Your task to perform on an android device: Search for the best gaming mouse on Best Buy. Image 0: 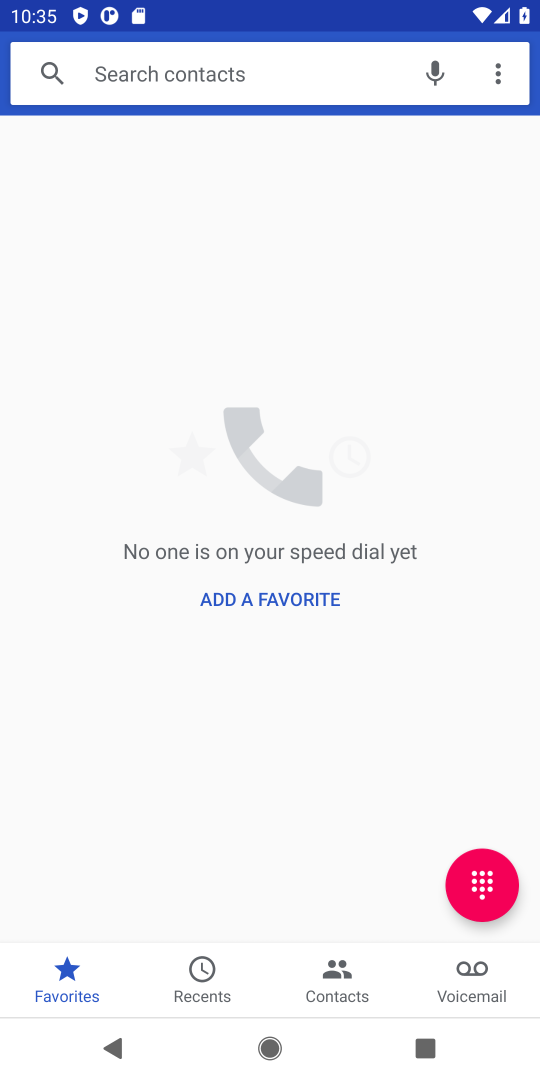
Step 0: press home button
Your task to perform on an android device: Search for the best gaming mouse on Best Buy. Image 1: 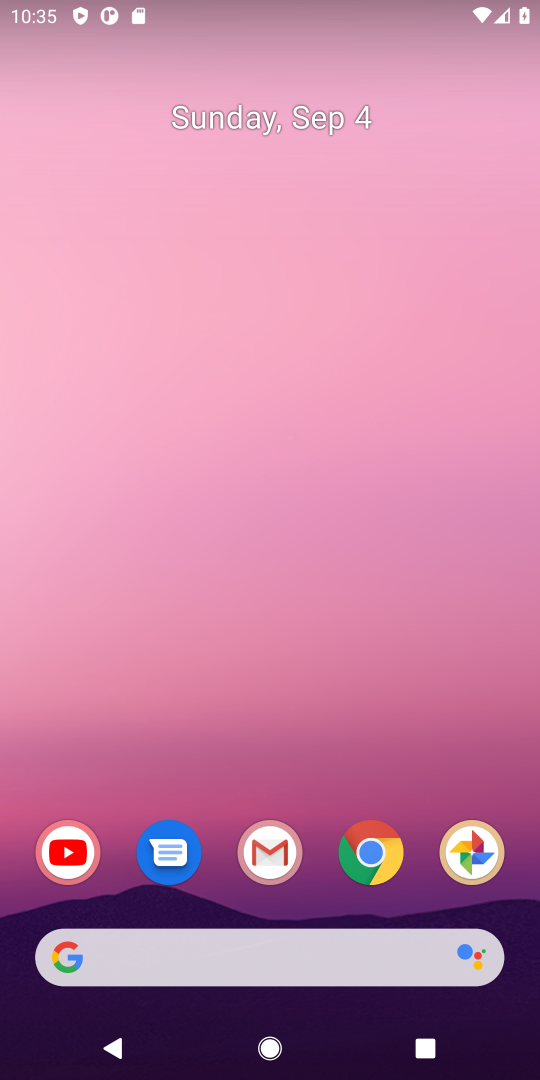
Step 1: drag from (422, 357) to (324, 7)
Your task to perform on an android device: Search for the best gaming mouse on Best Buy. Image 2: 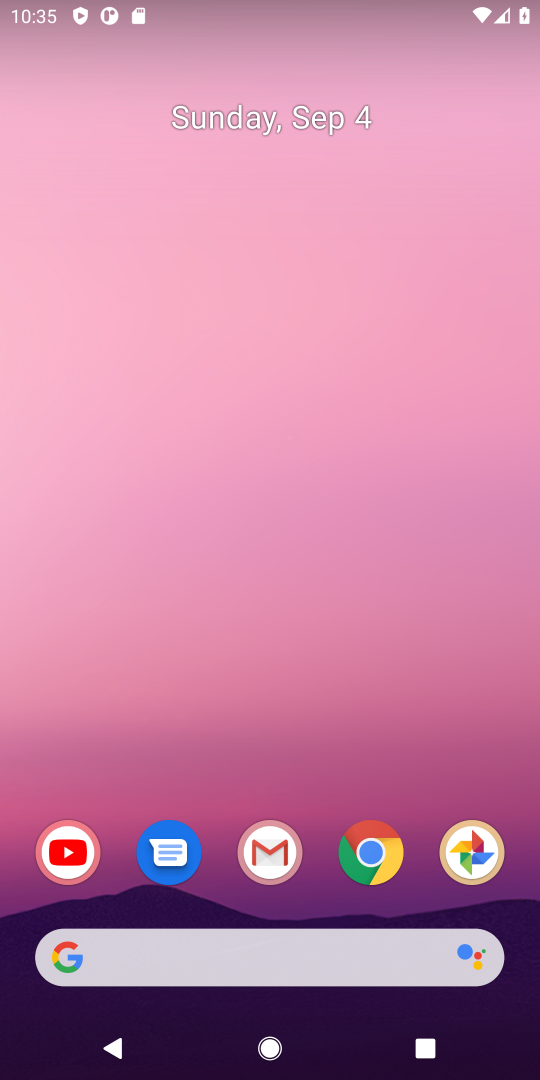
Step 2: drag from (427, 870) to (237, 36)
Your task to perform on an android device: Search for the best gaming mouse on Best Buy. Image 3: 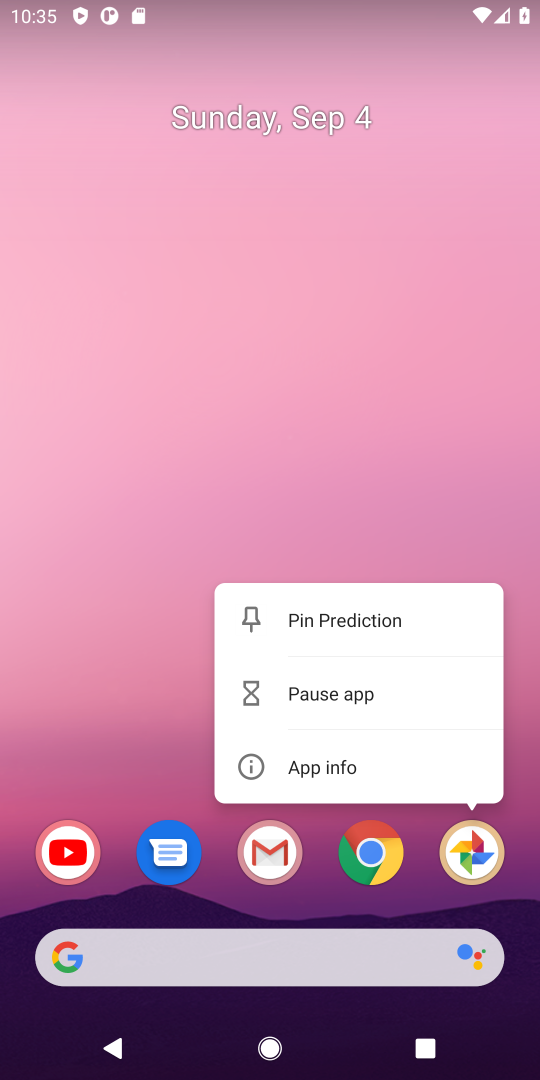
Step 3: click (341, 404)
Your task to perform on an android device: Search for the best gaming mouse on Best Buy. Image 4: 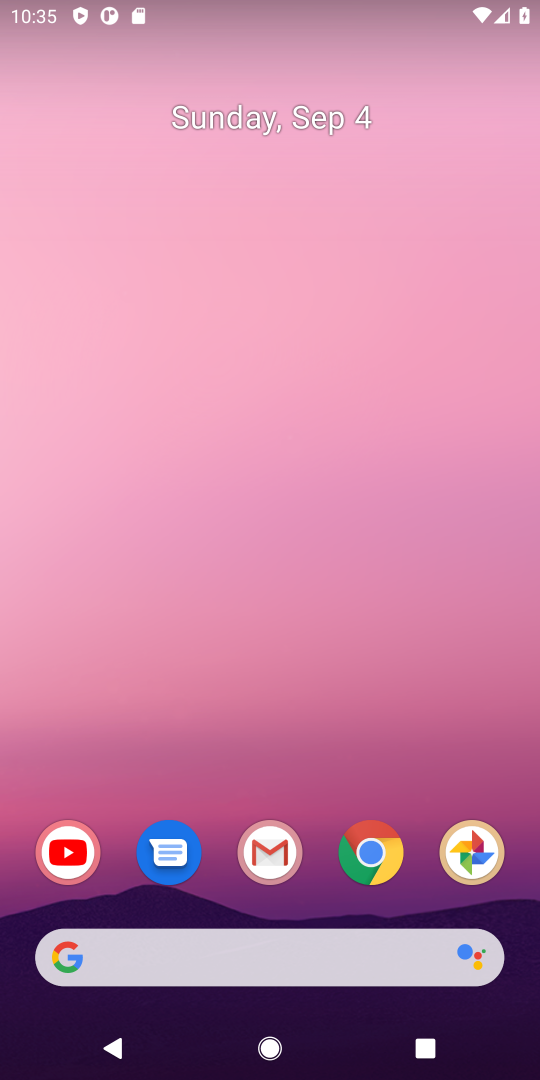
Step 4: drag from (323, 309) to (204, 15)
Your task to perform on an android device: Search for the best gaming mouse on Best Buy. Image 5: 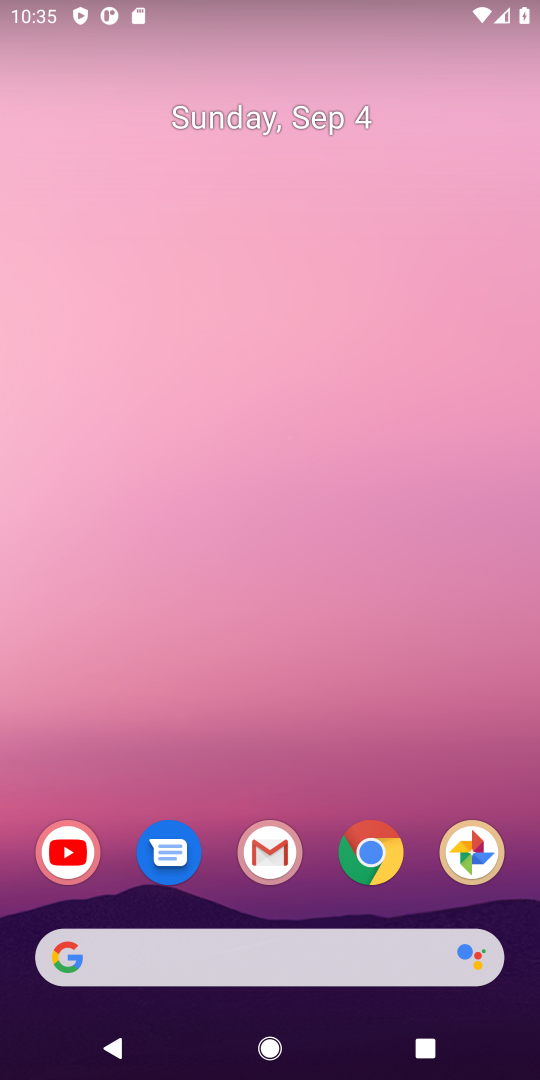
Step 5: drag from (425, 905) to (321, 25)
Your task to perform on an android device: Search for the best gaming mouse on Best Buy. Image 6: 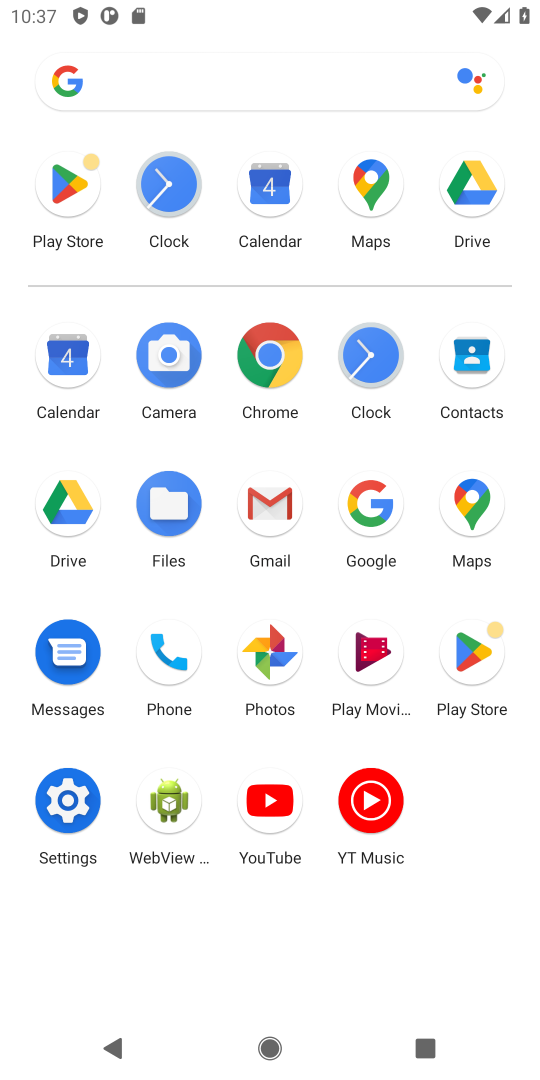
Step 6: click (349, 502)
Your task to perform on an android device: Search for the best gaming mouse on Best Buy. Image 7: 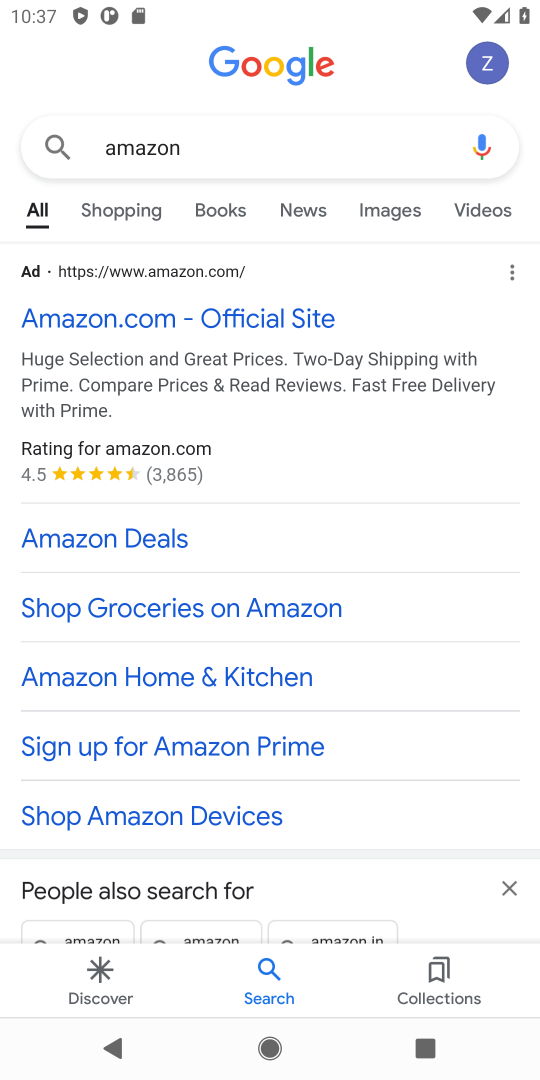
Step 7: press back button
Your task to perform on an android device: Search for the best gaming mouse on Best Buy. Image 8: 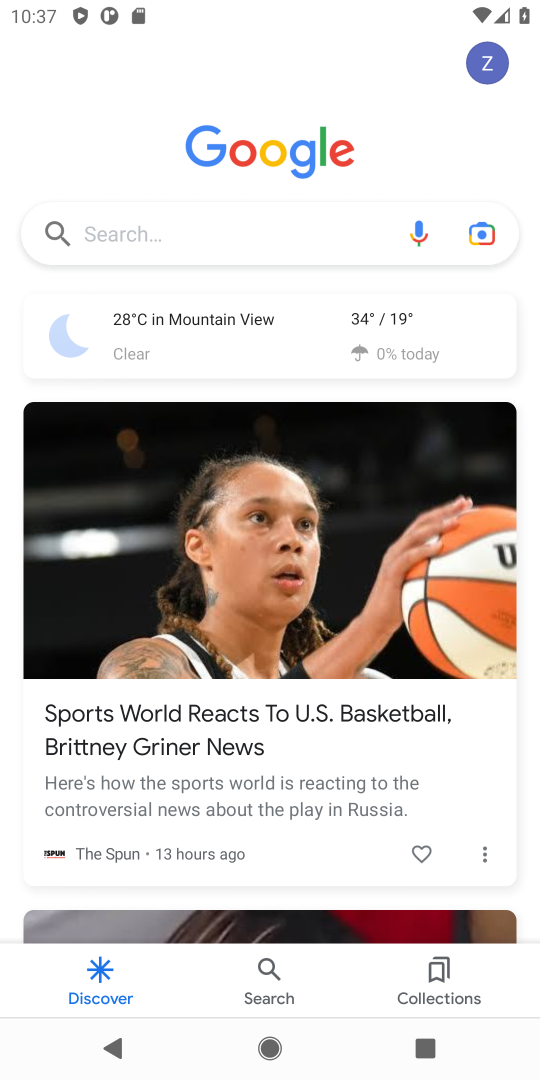
Step 8: click (125, 221)
Your task to perform on an android device: Search for the best gaming mouse on Best Buy. Image 9: 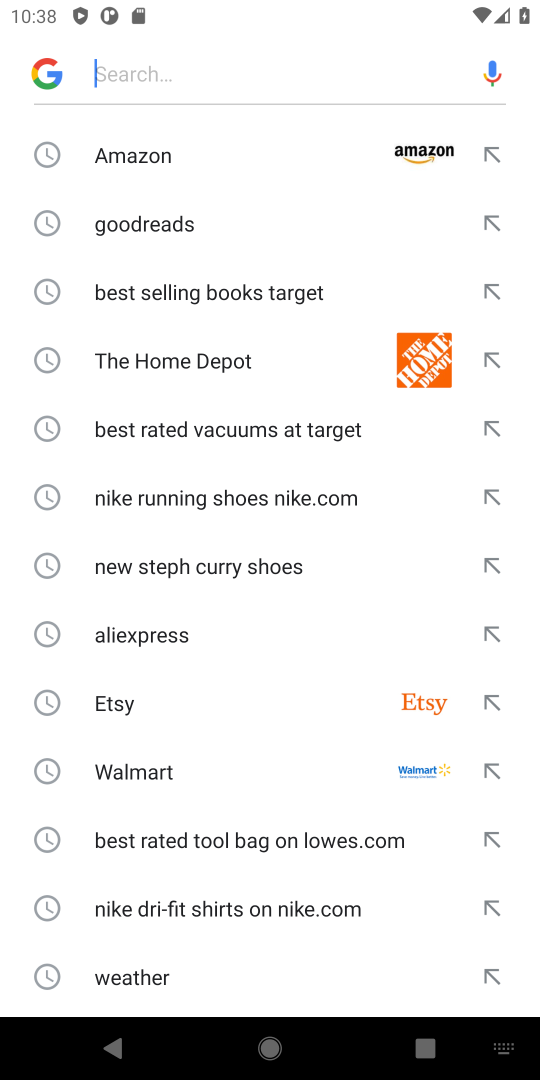
Step 9: type "gaming mouse on Best Buy"
Your task to perform on an android device: Search for the best gaming mouse on Best Buy. Image 10: 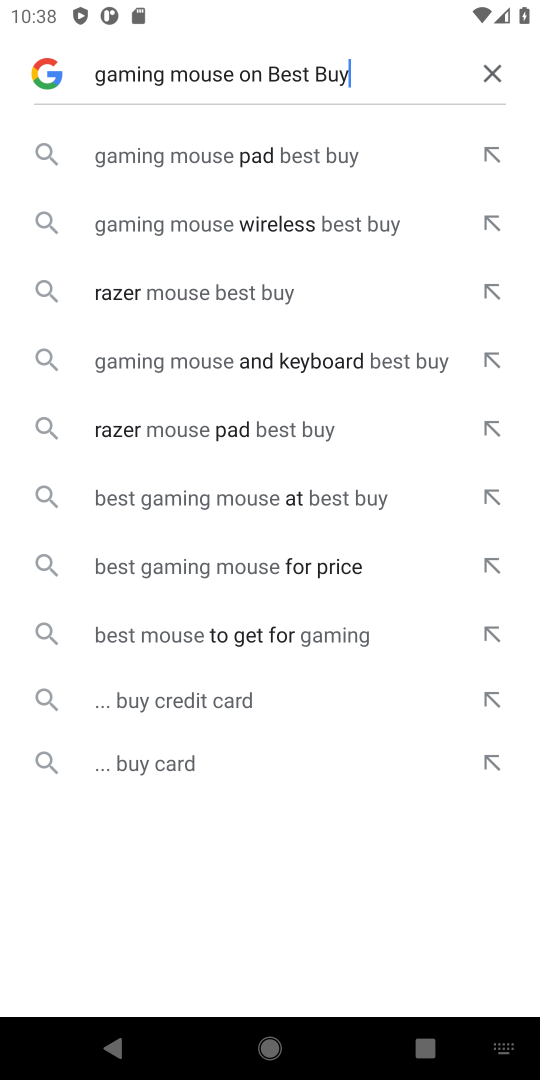
Step 10: click (222, 496)
Your task to perform on an android device: Search for the best gaming mouse on Best Buy. Image 11: 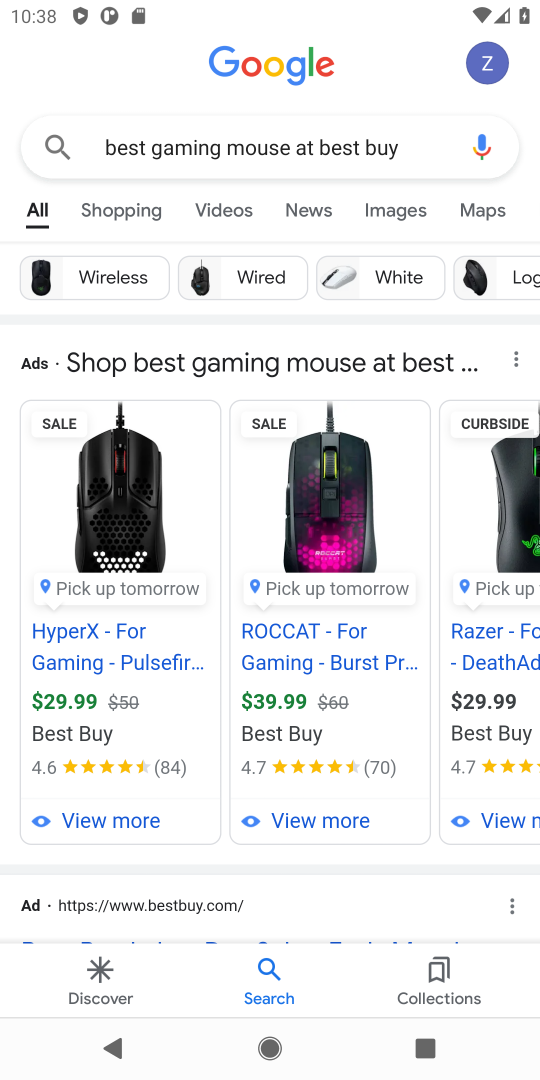
Step 11: task complete